Your task to perform on an android device: Open Youtube and go to the subscriptions tab Image 0: 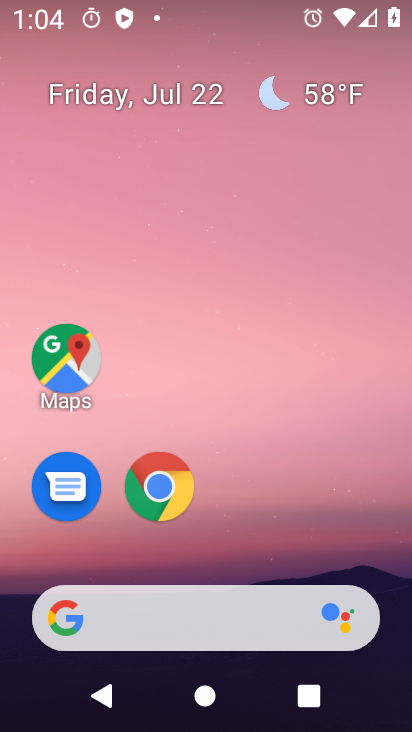
Step 0: press home button
Your task to perform on an android device: Open Youtube and go to the subscriptions tab Image 1: 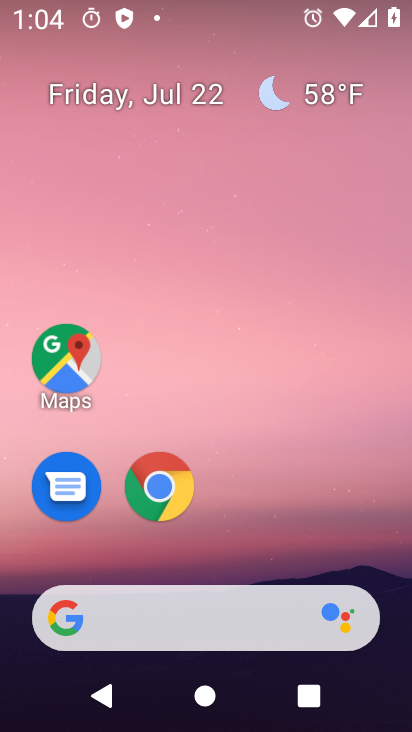
Step 1: drag from (351, 501) to (352, 190)
Your task to perform on an android device: Open Youtube and go to the subscriptions tab Image 2: 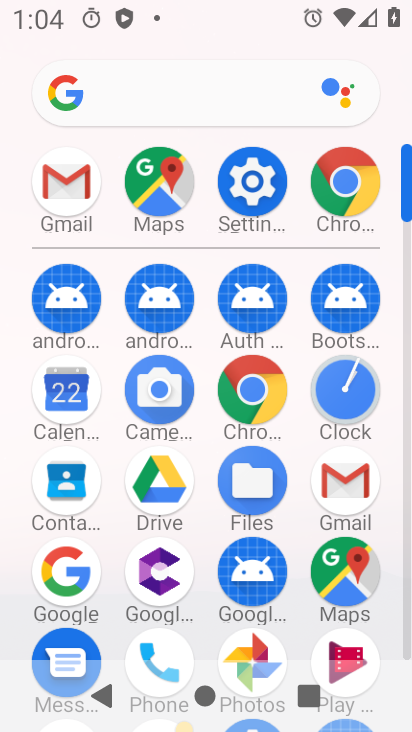
Step 2: drag from (391, 414) to (392, 196)
Your task to perform on an android device: Open Youtube and go to the subscriptions tab Image 3: 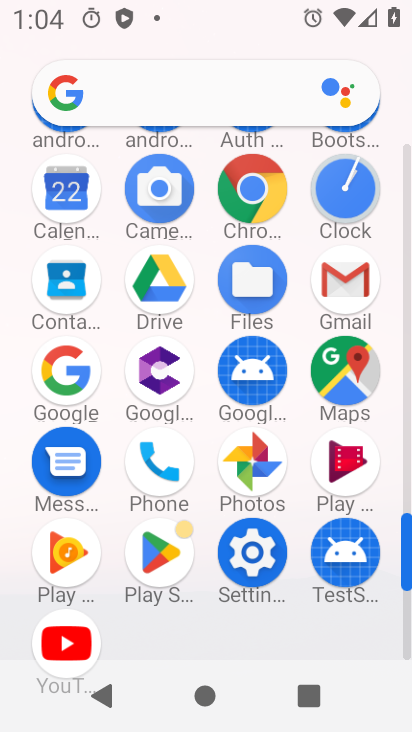
Step 3: drag from (239, 624) to (238, 462)
Your task to perform on an android device: Open Youtube and go to the subscriptions tab Image 4: 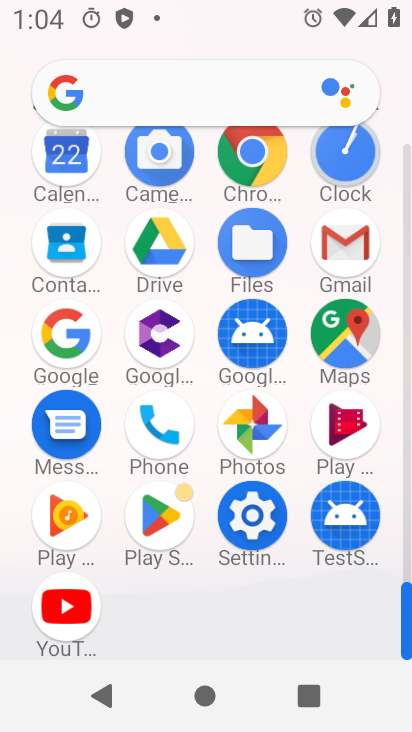
Step 4: click (60, 608)
Your task to perform on an android device: Open Youtube and go to the subscriptions tab Image 5: 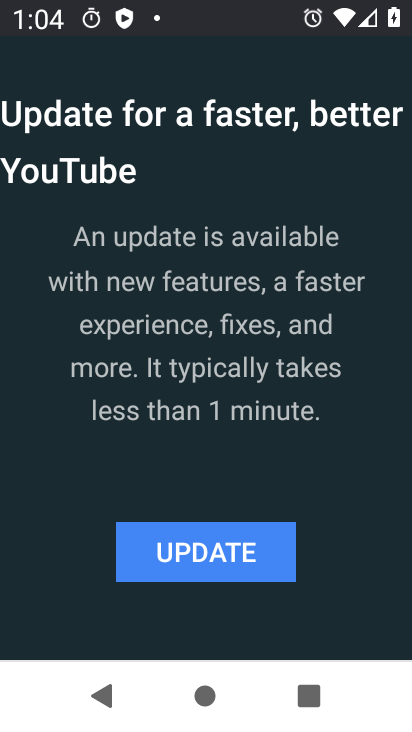
Step 5: click (232, 558)
Your task to perform on an android device: Open Youtube and go to the subscriptions tab Image 6: 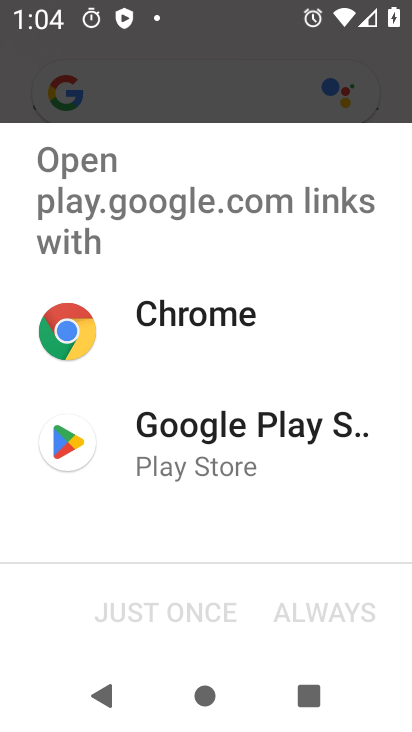
Step 6: click (190, 463)
Your task to perform on an android device: Open Youtube and go to the subscriptions tab Image 7: 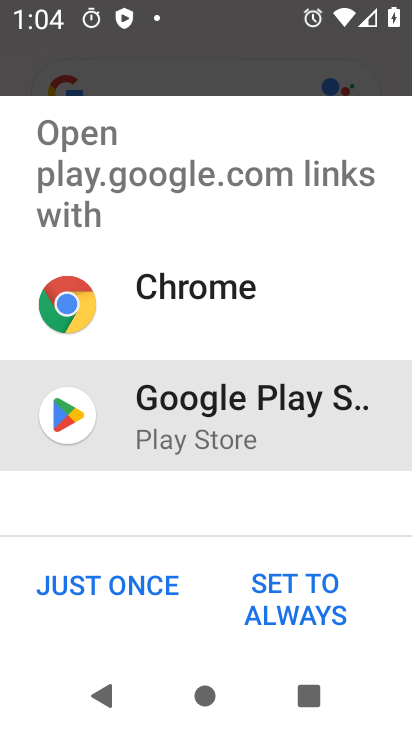
Step 7: click (159, 586)
Your task to perform on an android device: Open Youtube and go to the subscriptions tab Image 8: 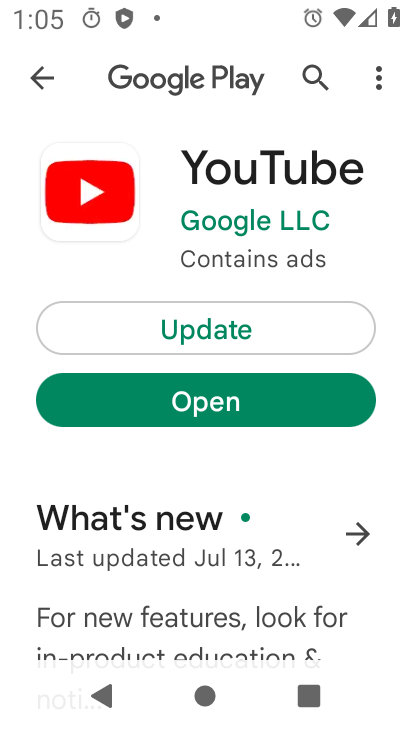
Step 8: click (270, 337)
Your task to perform on an android device: Open Youtube and go to the subscriptions tab Image 9: 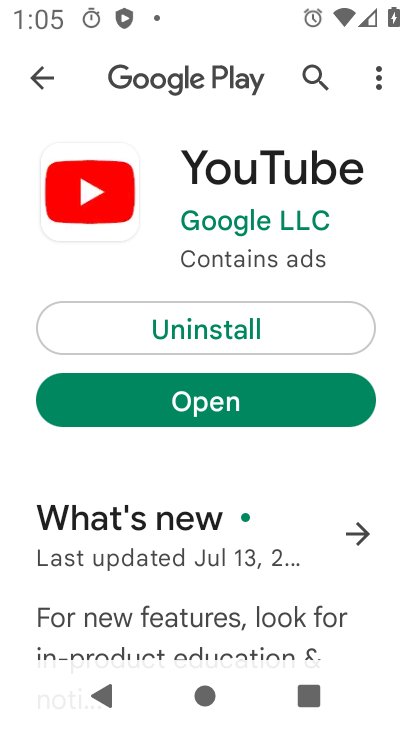
Step 9: click (336, 400)
Your task to perform on an android device: Open Youtube and go to the subscriptions tab Image 10: 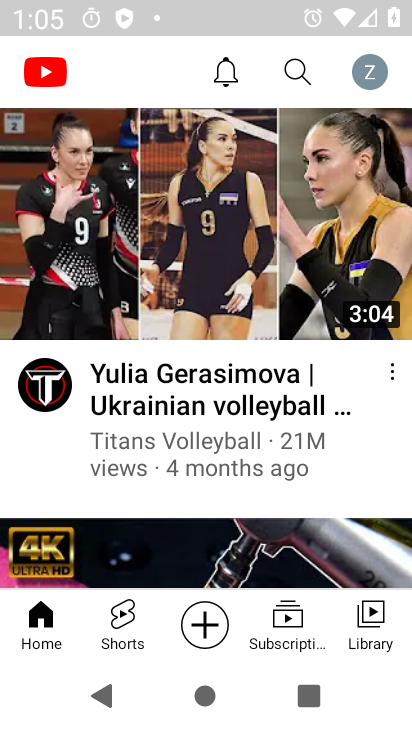
Step 10: click (285, 629)
Your task to perform on an android device: Open Youtube and go to the subscriptions tab Image 11: 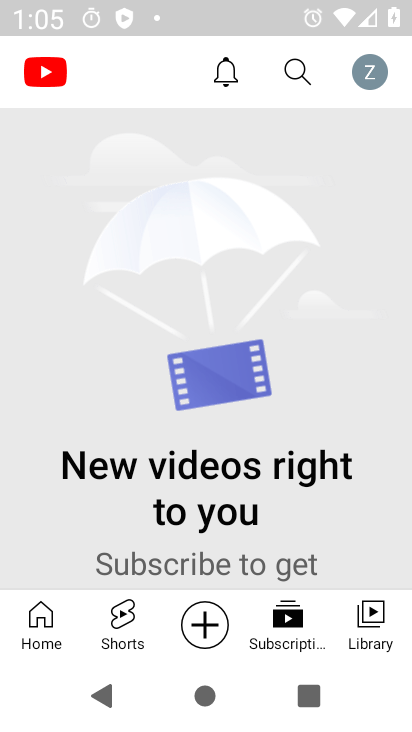
Step 11: task complete